Your task to perform on an android device: open app "Facebook Messenger" Image 0: 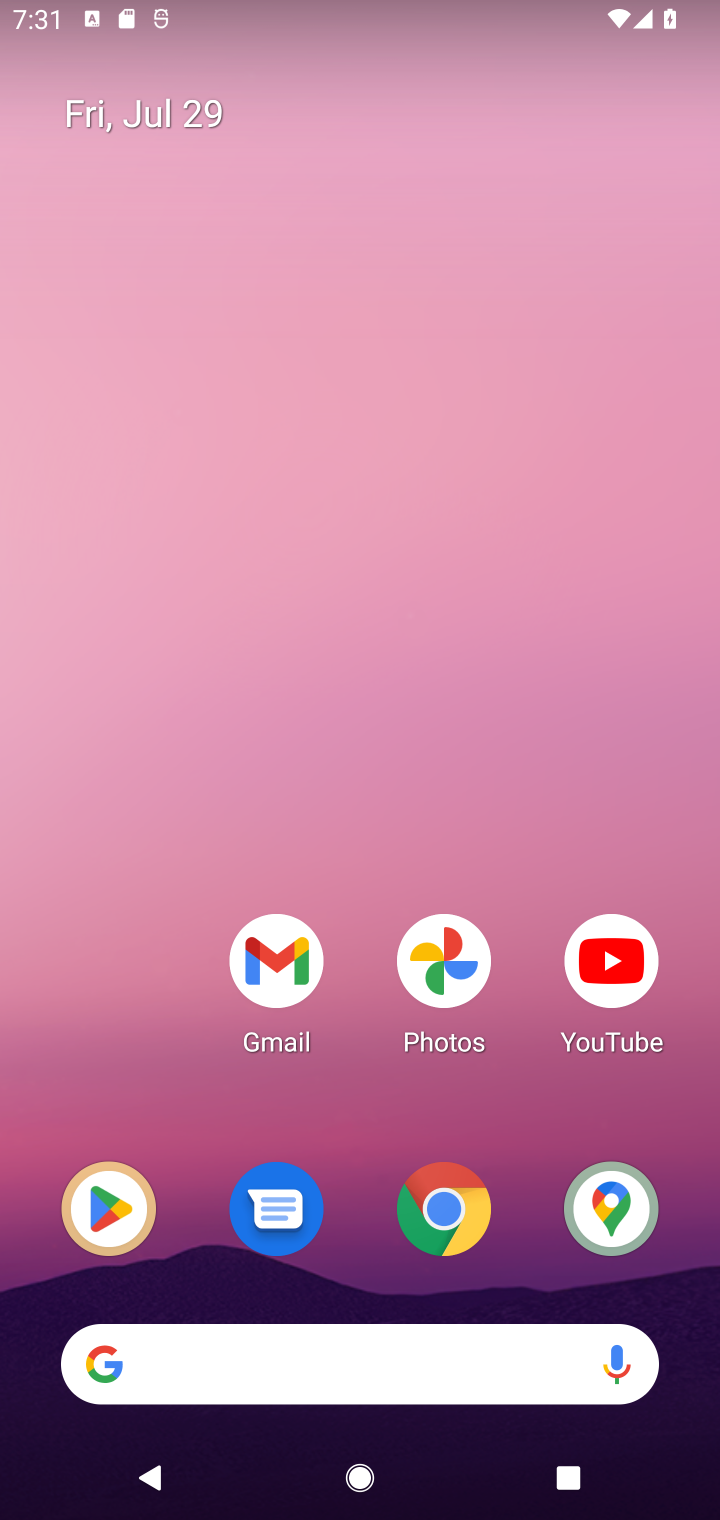
Step 0: click (109, 1212)
Your task to perform on an android device: open app "Facebook Messenger" Image 1: 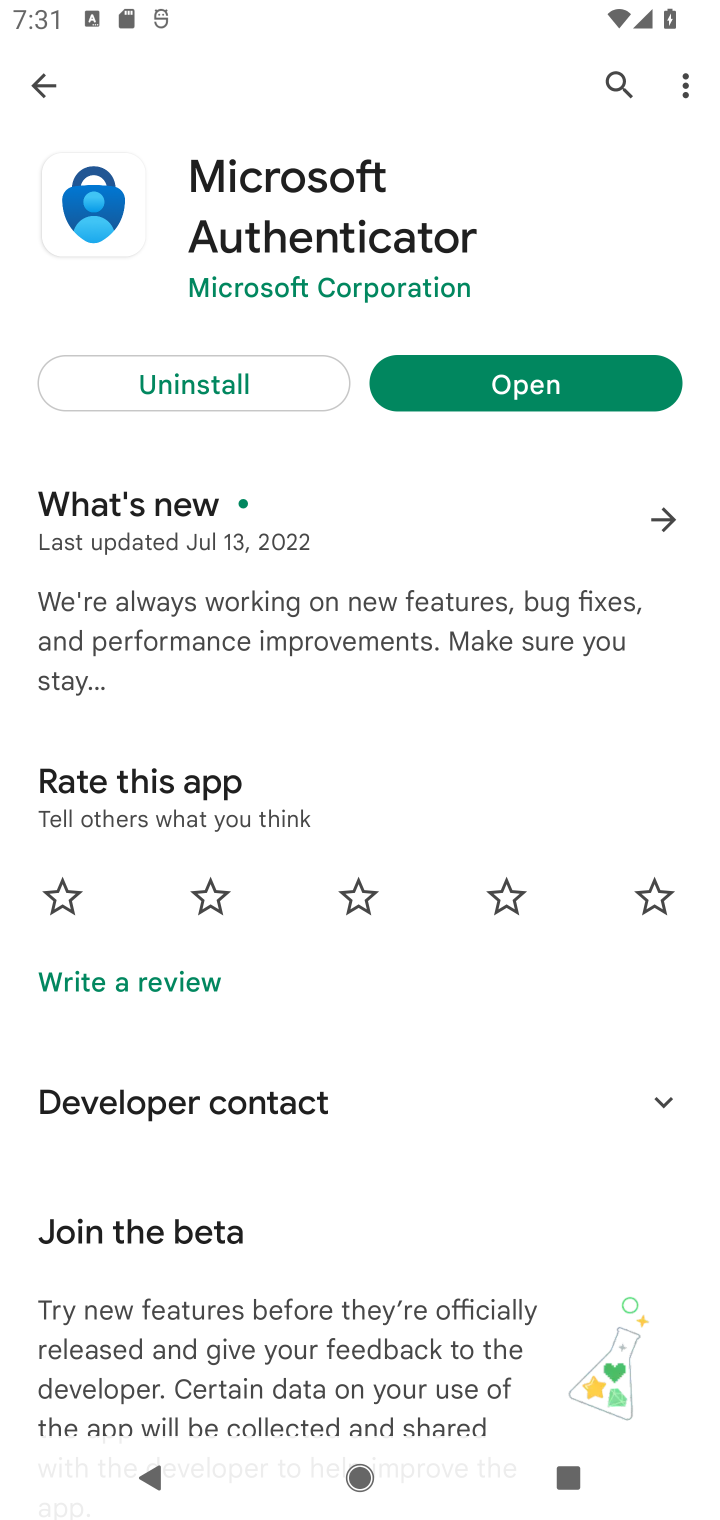
Step 1: click (620, 90)
Your task to perform on an android device: open app "Facebook Messenger" Image 2: 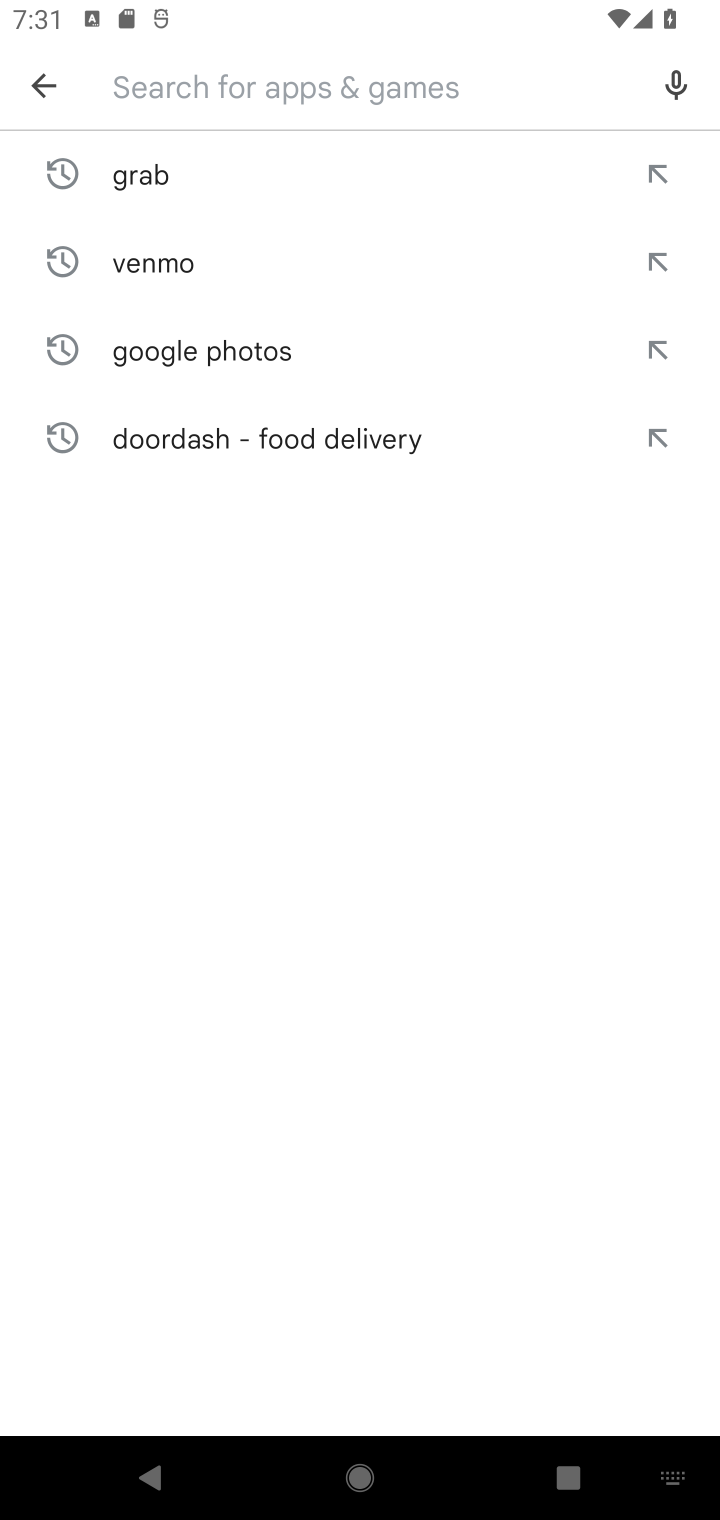
Step 2: click (435, 88)
Your task to perform on an android device: open app "Facebook Messenger" Image 3: 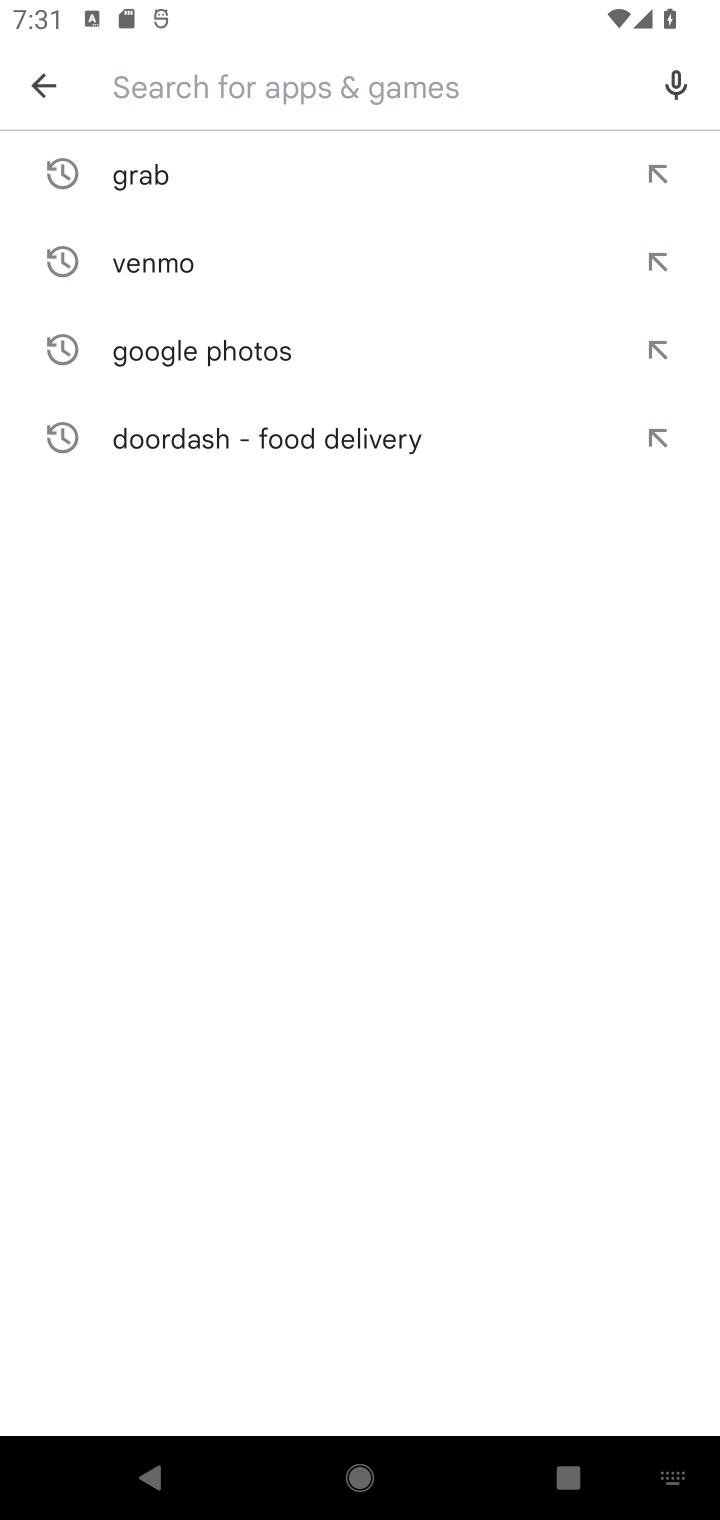
Step 3: type "Facebook Messenger"
Your task to perform on an android device: open app "Facebook Messenger" Image 4: 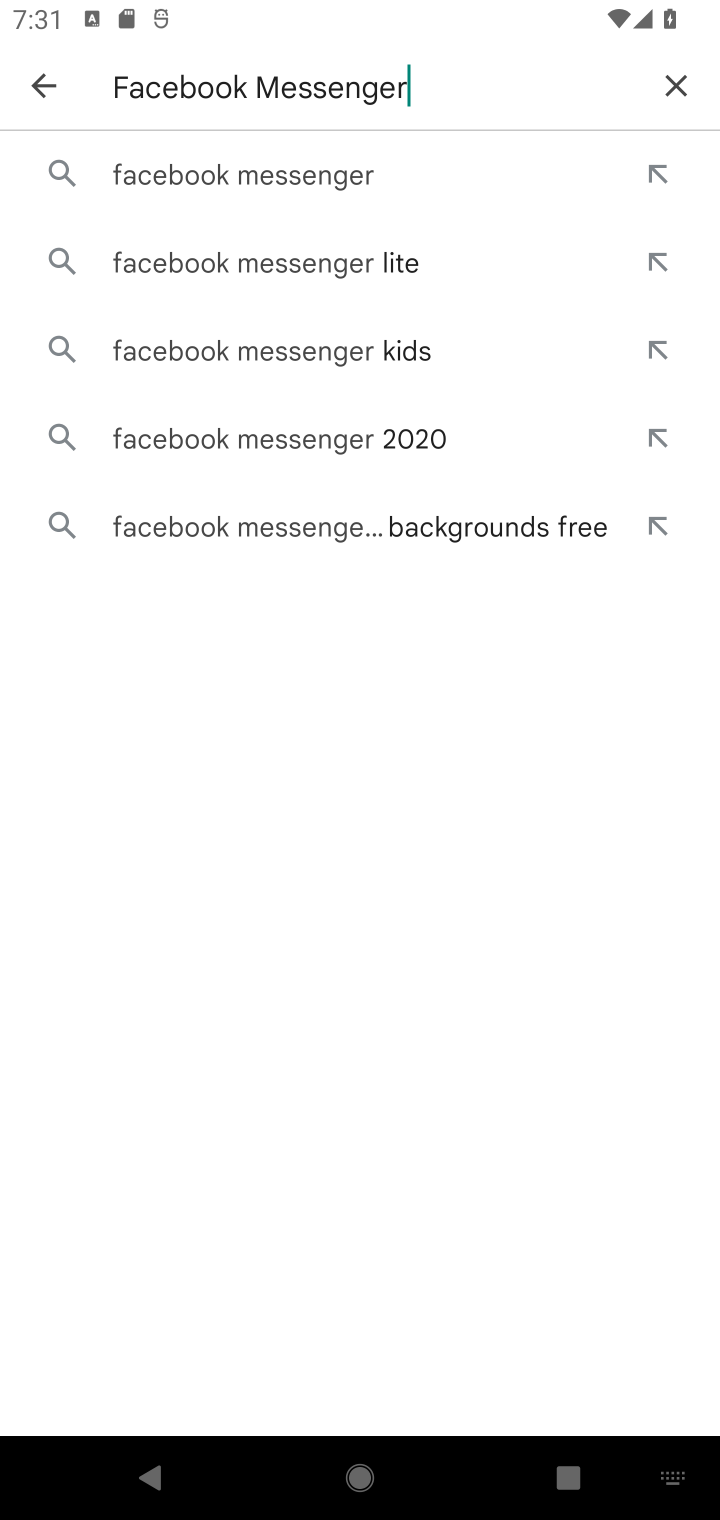
Step 4: click (205, 177)
Your task to perform on an android device: open app "Facebook Messenger" Image 5: 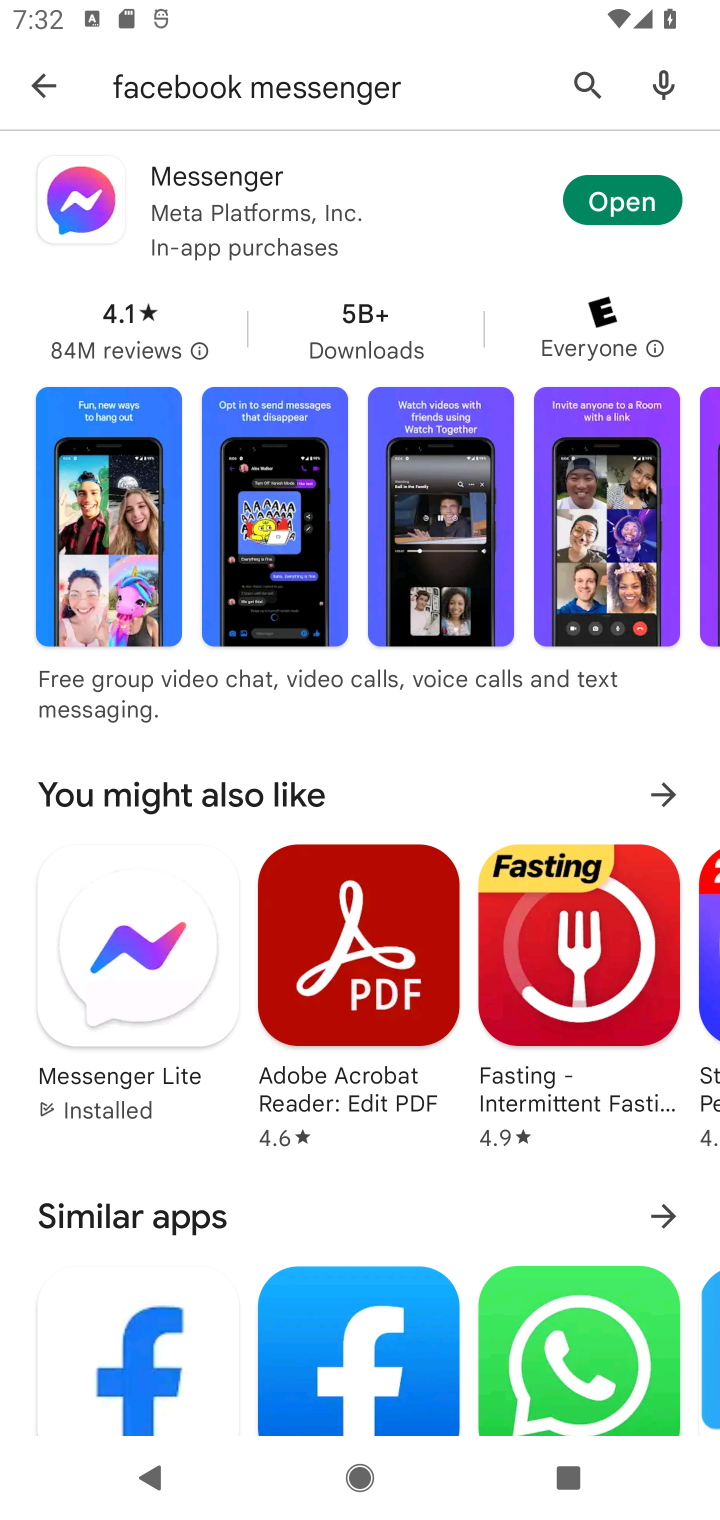
Step 5: click (658, 215)
Your task to perform on an android device: open app "Facebook Messenger" Image 6: 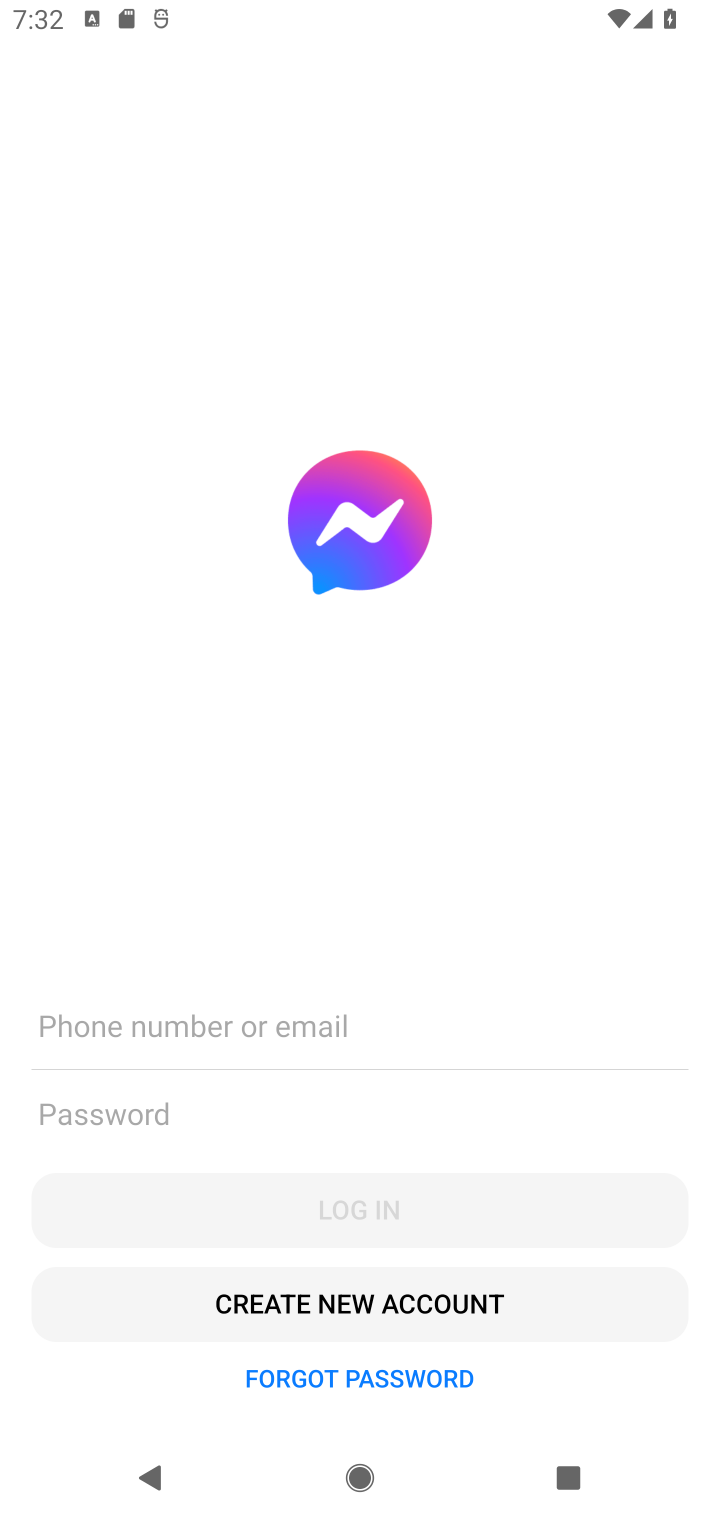
Step 6: task complete